Your task to perform on an android device: open wifi settings Image 0: 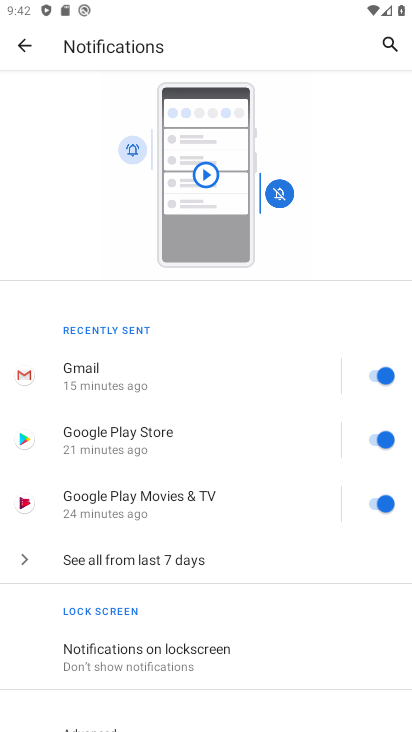
Step 0: press home button
Your task to perform on an android device: open wifi settings Image 1: 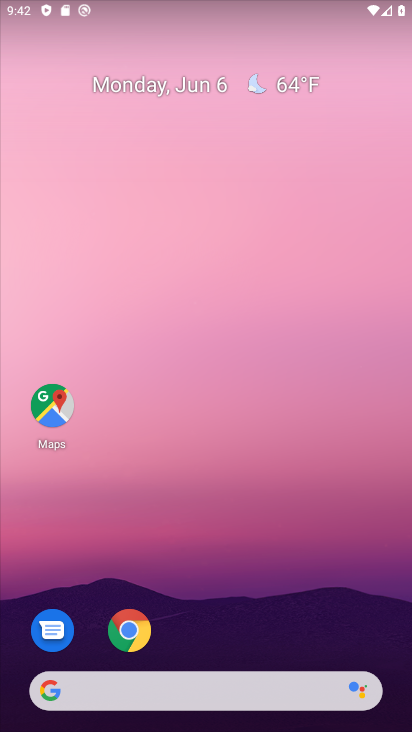
Step 1: drag from (102, 724) to (41, 35)
Your task to perform on an android device: open wifi settings Image 2: 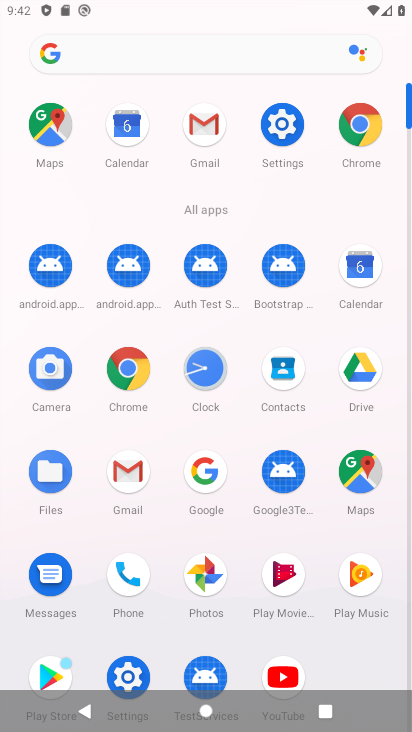
Step 2: click (289, 131)
Your task to perform on an android device: open wifi settings Image 3: 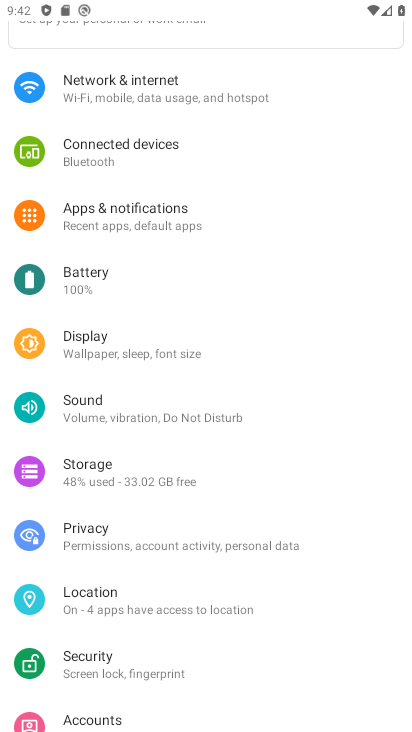
Step 3: click (135, 93)
Your task to perform on an android device: open wifi settings Image 4: 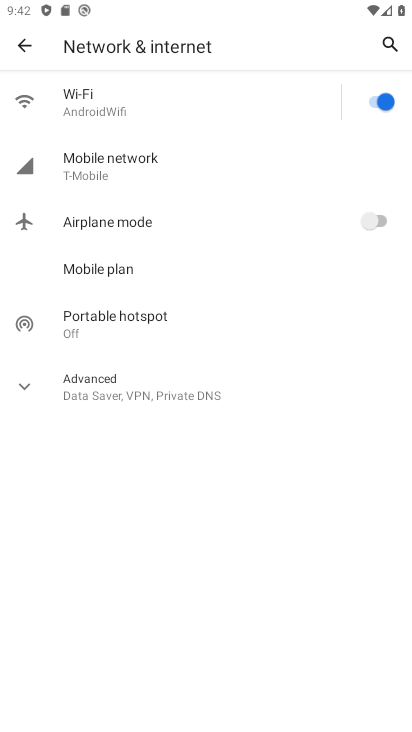
Step 4: click (139, 109)
Your task to perform on an android device: open wifi settings Image 5: 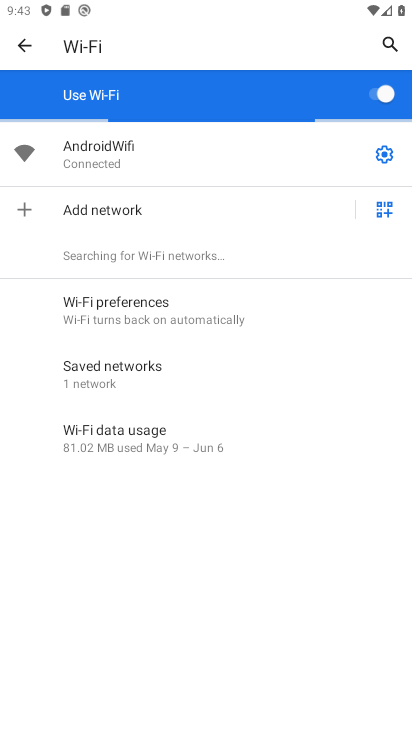
Step 5: task complete